Your task to perform on an android device: open the mobile data screen to see how much data has been used Image 0: 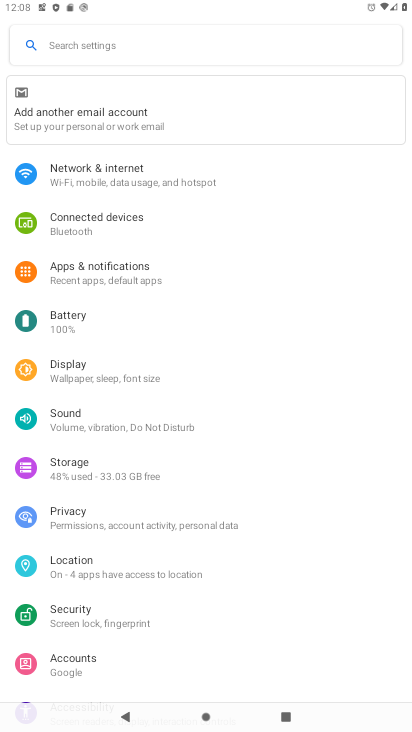
Step 0: press home button
Your task to perform on an android device: open the mobile data screen to see how much data has been used Image 1: 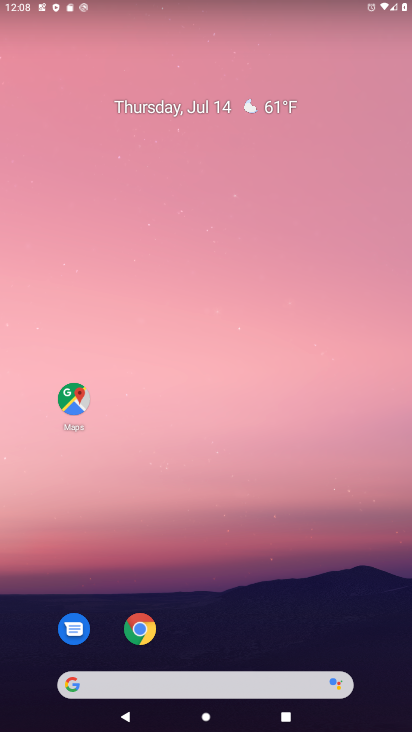
Step 1: drag from (204, 536) to (139, 243)
Your task to perform on an android device: open the mobile data screen to see how much data has been used Image 2: 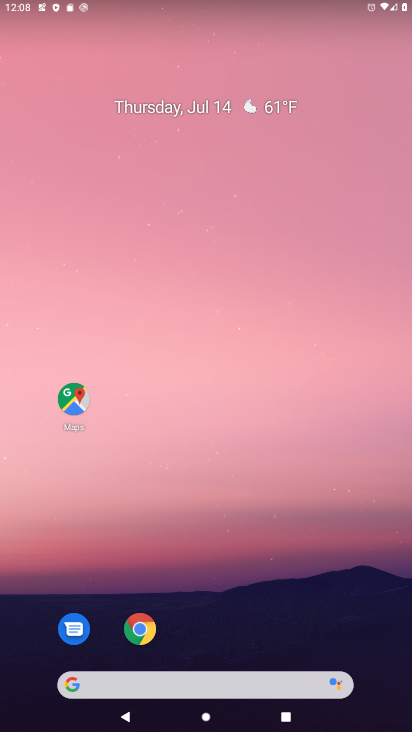
Step 2: drag from (232, 565) to (196, 77)
Your task to perform on an android device: open the mobile data screen to see how much data has been used Image 3: 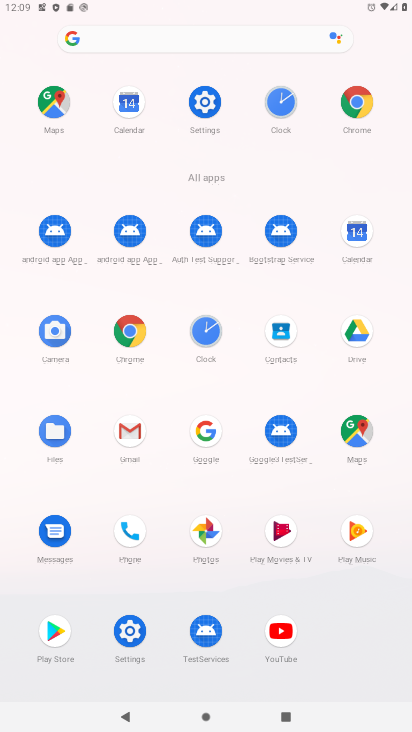
Step 3: click (206, 97)
Your task to perform on an android device: open the mobile data screen to see how much data has been used Image 4: 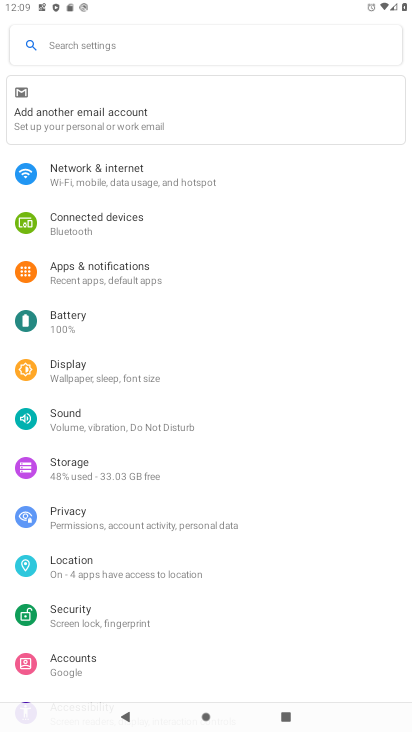
Step 4: click (105, 170)
Your task to perform on an android device: open the mobile data screen to see how much data has been used Image 5: 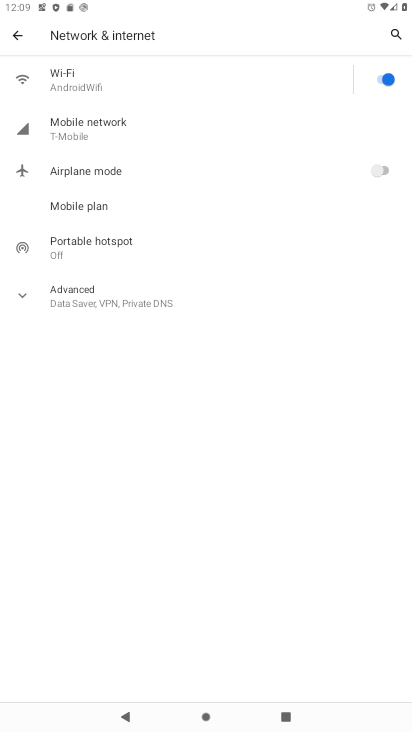
Step 5: click (90, 122)
Your task to perform on an android device: open the mobile data screen to see how much data has been used Image 6: 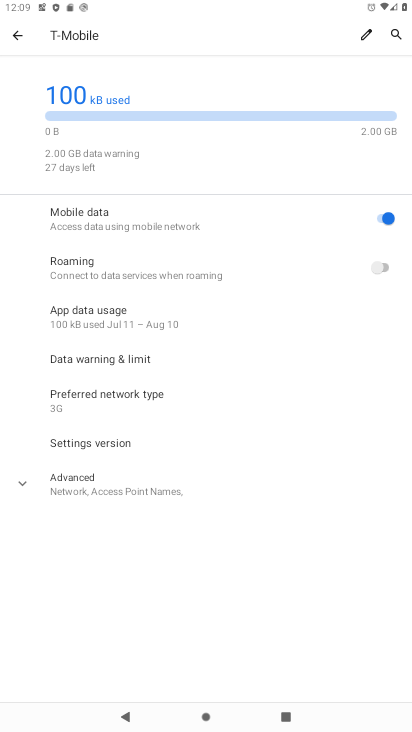
Step 6: task complete